Your task to perform on an android device: open chrome and create a bookmark for the current page Image 0: 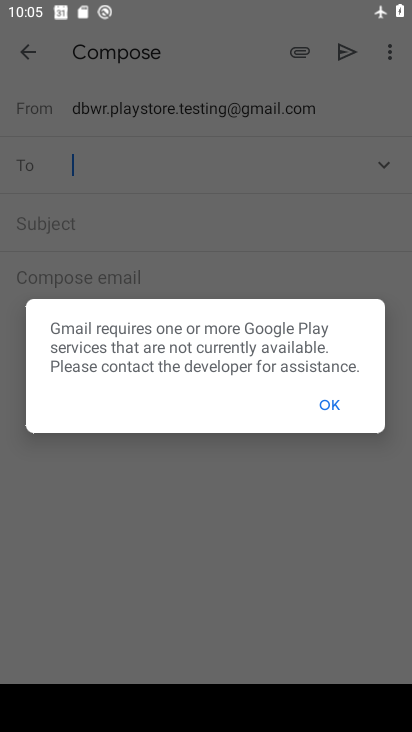
Step 0: click (309, 380)
Your task to perform on an android device: open chrome and create a bookmark for the current page Image 1: 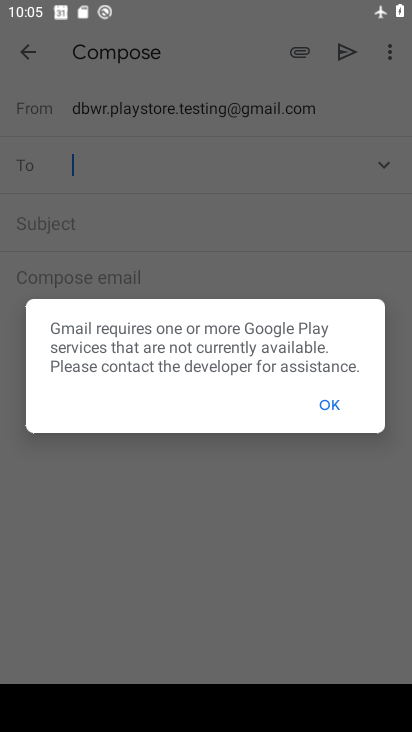
Step 1: press home button
Your task to perform on an android device: open chrome and create a bookmark for the current page Image 2: 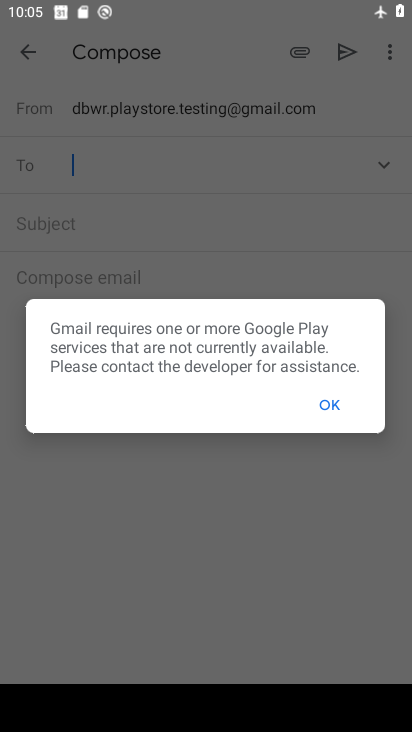
Step 2: press home button
Your task to perform on an android device: open chrome and create a bookmark for the current page Image 3: 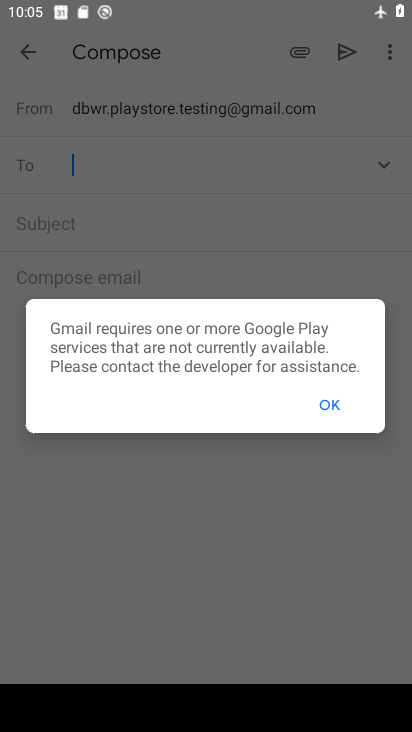
Step 3: drag from (226, 364) to (286, 90)
Your task to perform on an android device: open chrome and create a bookmark for the current page Image 4: 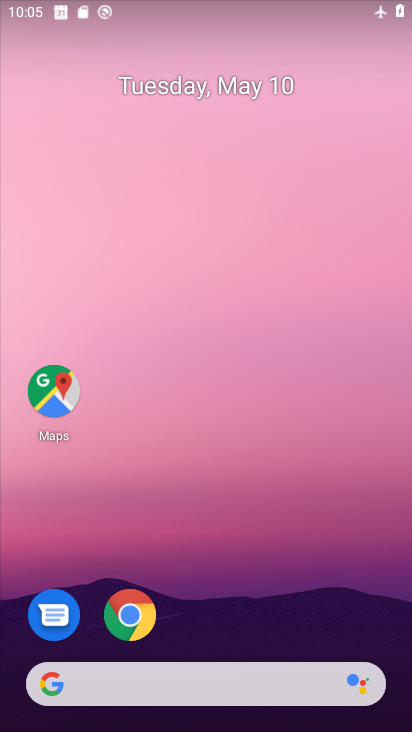
Step 4: drag from (187, 636) to (274, 71)
Your task to perform on an android device: open chrome and create a bookmark for the current page Image 5: 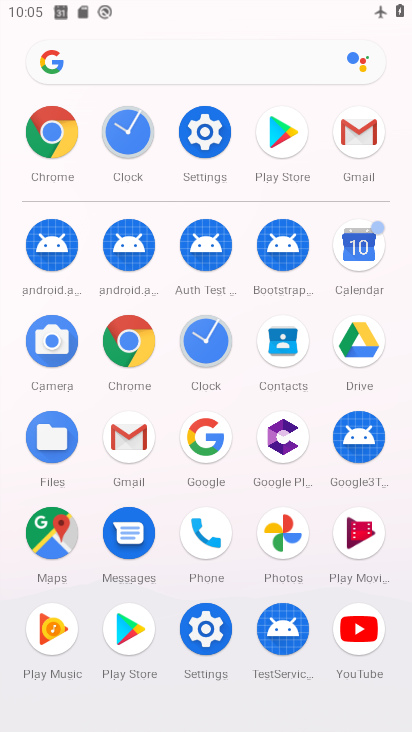
Step 5: click (127, 345)
Your task to perform on an android device: open chrome and create a bookmark for the current page Image 6: 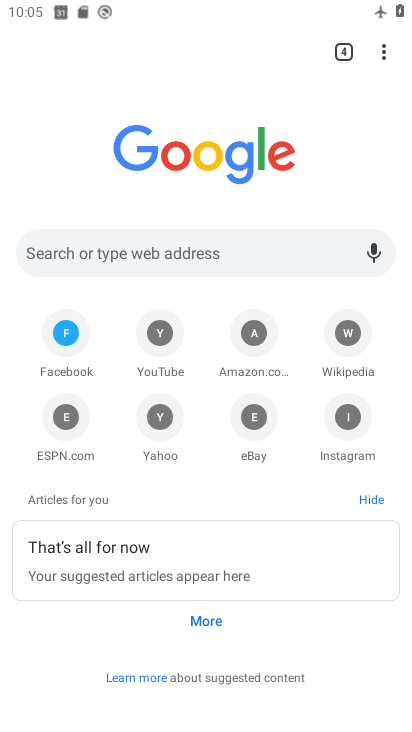
Step 6: drag from (388, 44) to (58, 161)
Your task to perform on an android device: open chrome and create a bookmark for the current page Image 7: 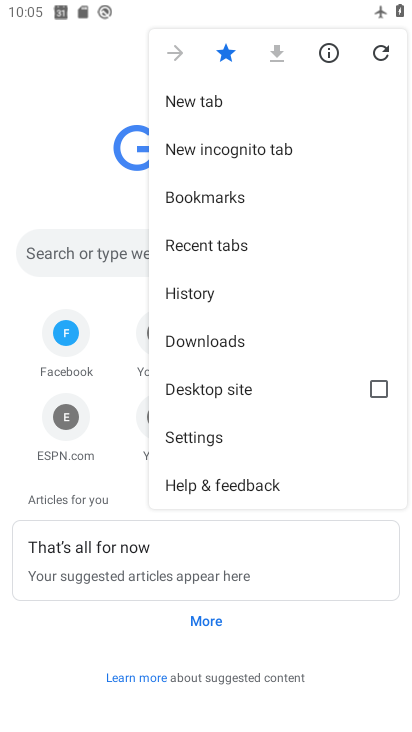
Step 7: click (58, 161)
Your task to perform on an android device: open chrome and create a bookmark for the current page Image 8: 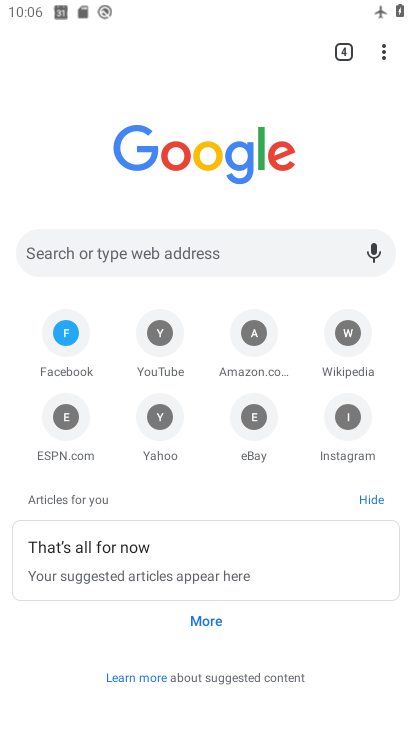
Step 8: task complete